Your task to perform on an android device: Open maps Image 0: 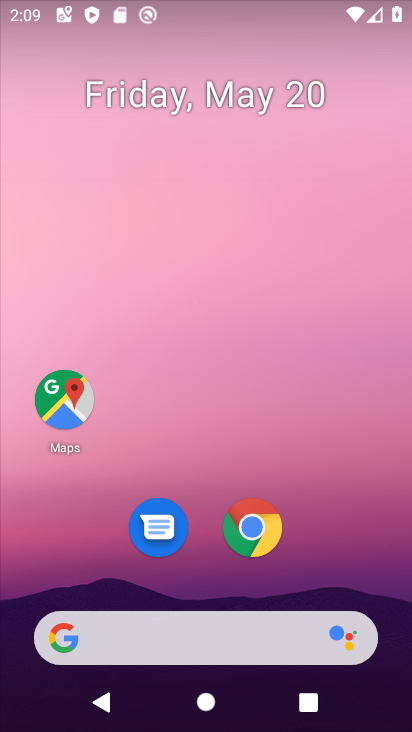
Step 0: click (75, 418)
Your task to perform on an android device: Open maps Image 1: 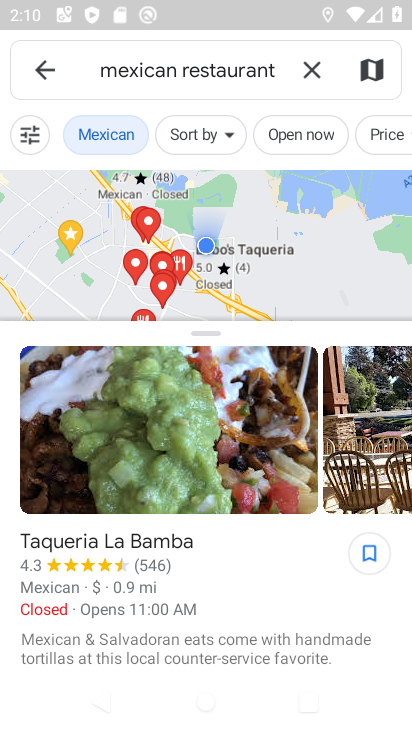
Step 1: task complete